Your task to perform on an android device: What's the weather? Image 0: 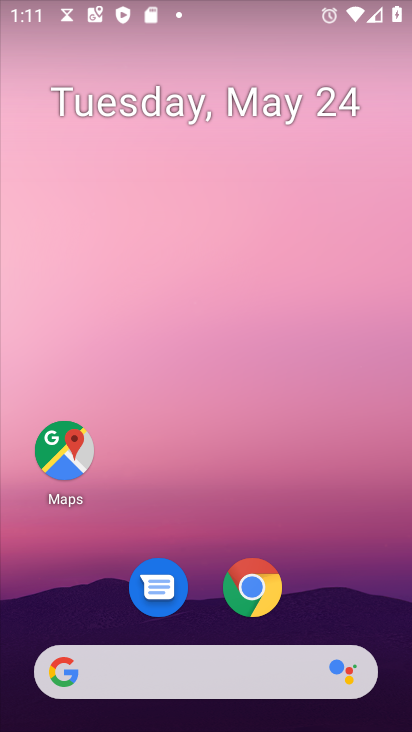
Step 0: drag from (8, 292) to (394, 252)
Your task to perform on an android device: What's the weather? Image 1: 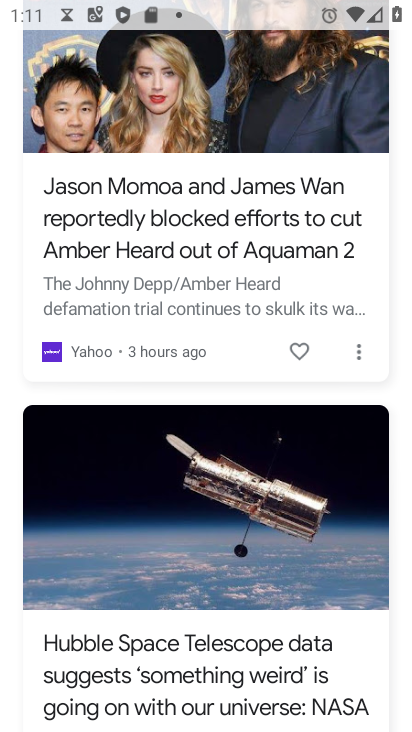
Step 1: drag from (247, 117) to (272, 725)
Your task to perform on an android device: What's the weather? Image 2: 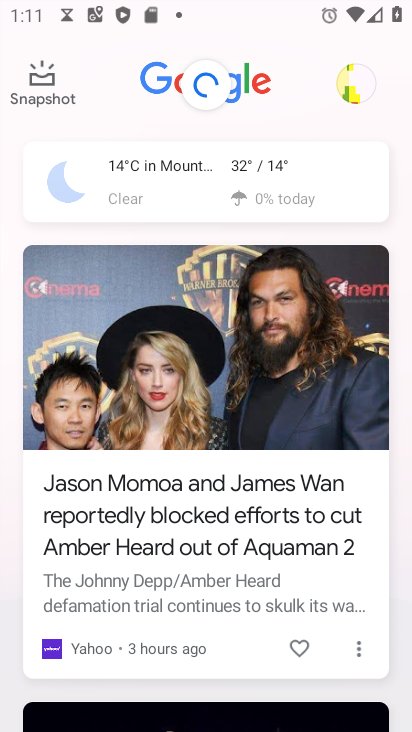
Step 2: drag from (216, 136) to (291, 528)
Your task to perform on an android device: What's the weather? Image 3: 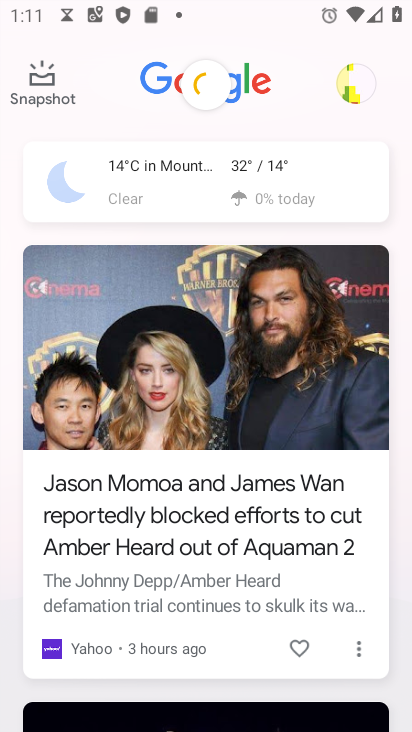
Step 3: drag from (158, 142) to (139, 366)
Your task to perform on an android device: What's the weather? Image 4: 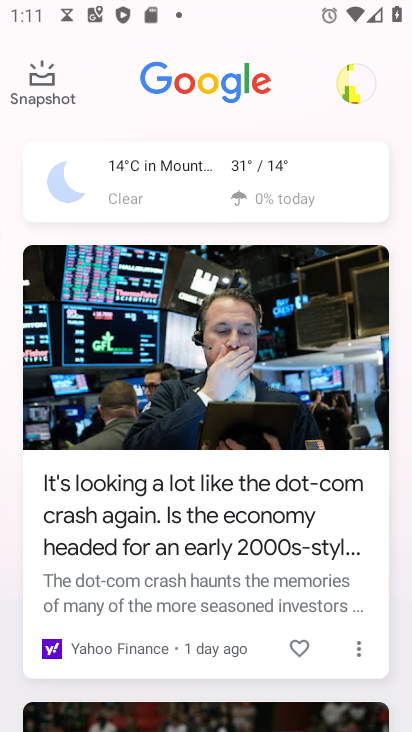
Step 4: click (66, 190)
Your task to perform on an android device: What's the weather? Image 5: 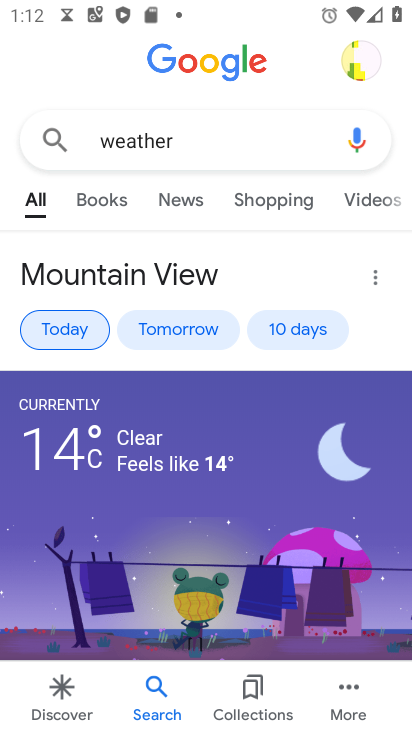
Step 5: task complete